Your task to perform on an android device: uninstall "Walmart Shopping & Grocery" Image 0: 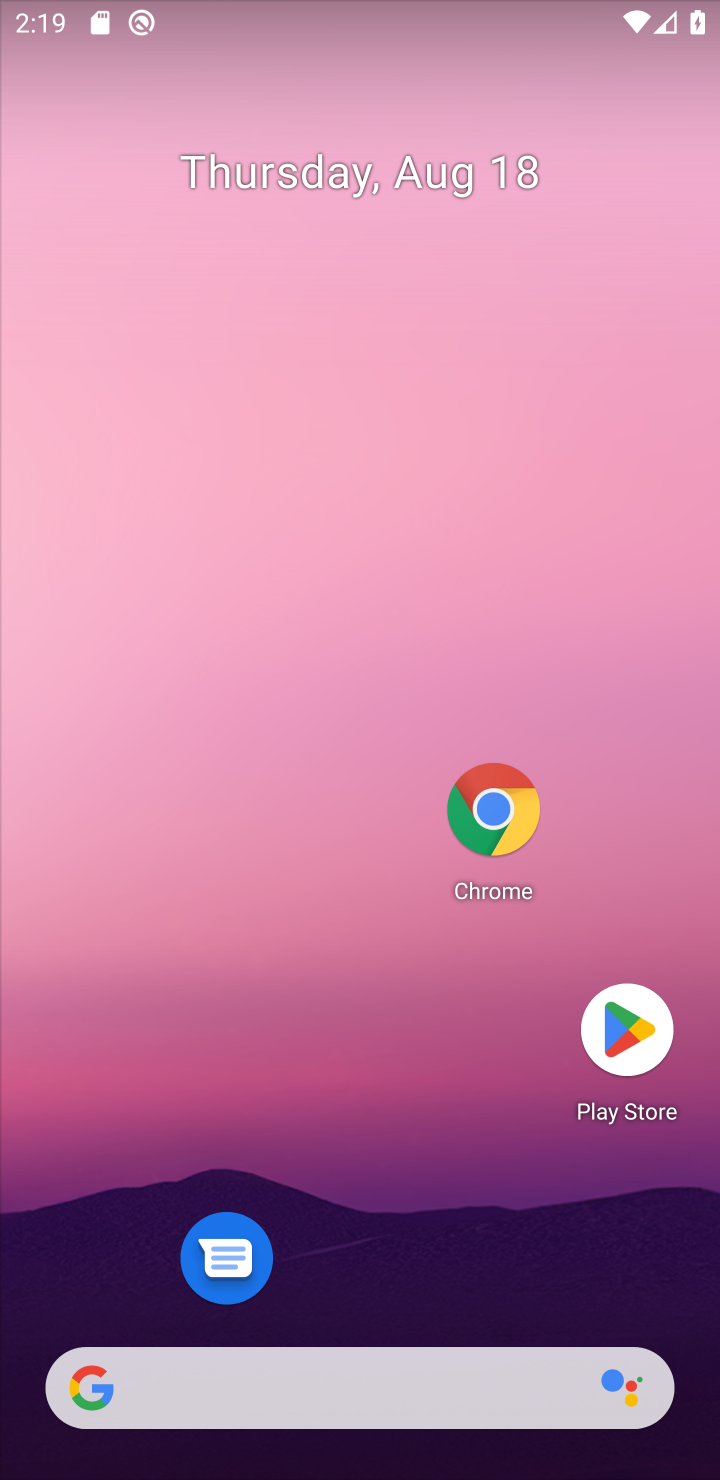
Step 0: drag from (389, 1250) to (403, 292)
Your task to perform on an android device: uninstall "Walmart Shopping & Grocery" Image 1: 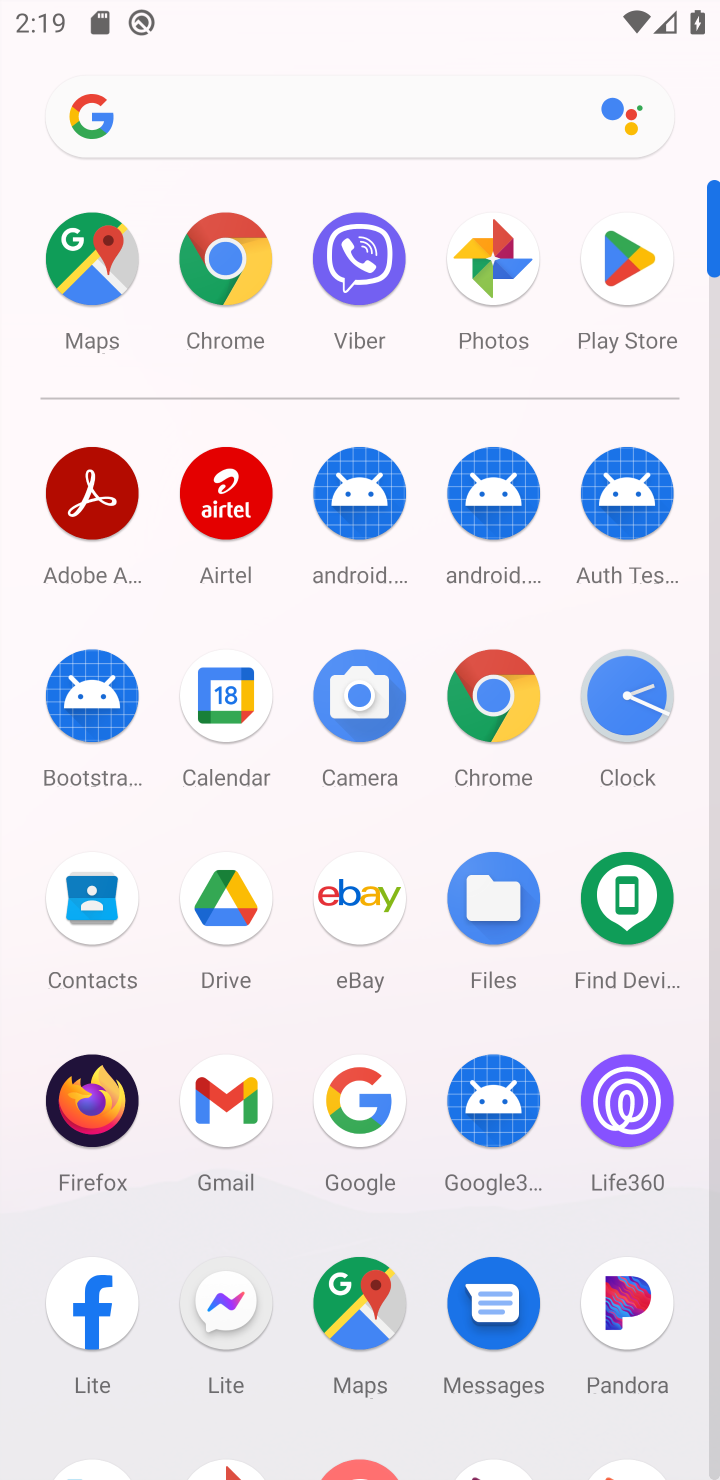
Step 1: click (622, 259)
Your task to perform on an android device: uninstall "Walmart Shopping & Grocery" Image 2: 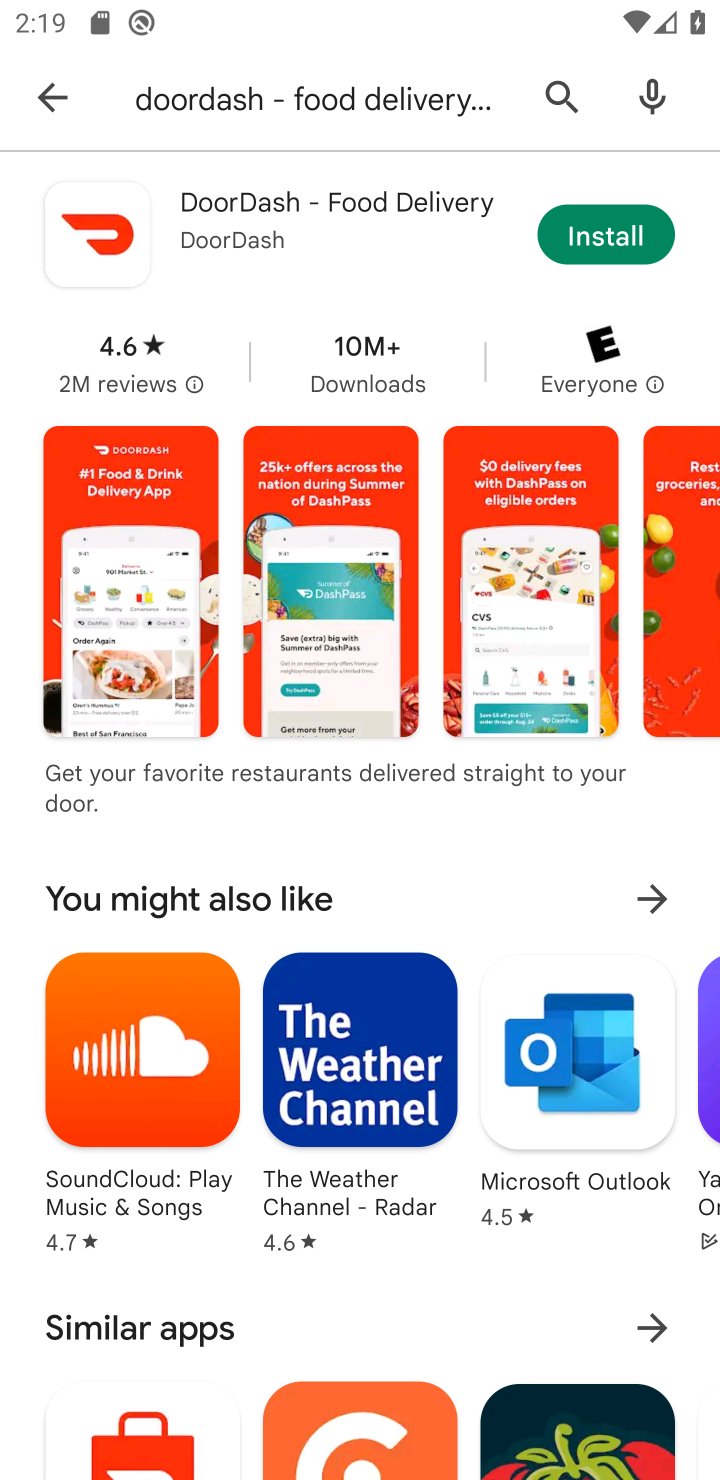
Step 2: click (50, 106)
Your task to perform on an android device: uninstall "Walmart Shopping & Grocery" Image 3: 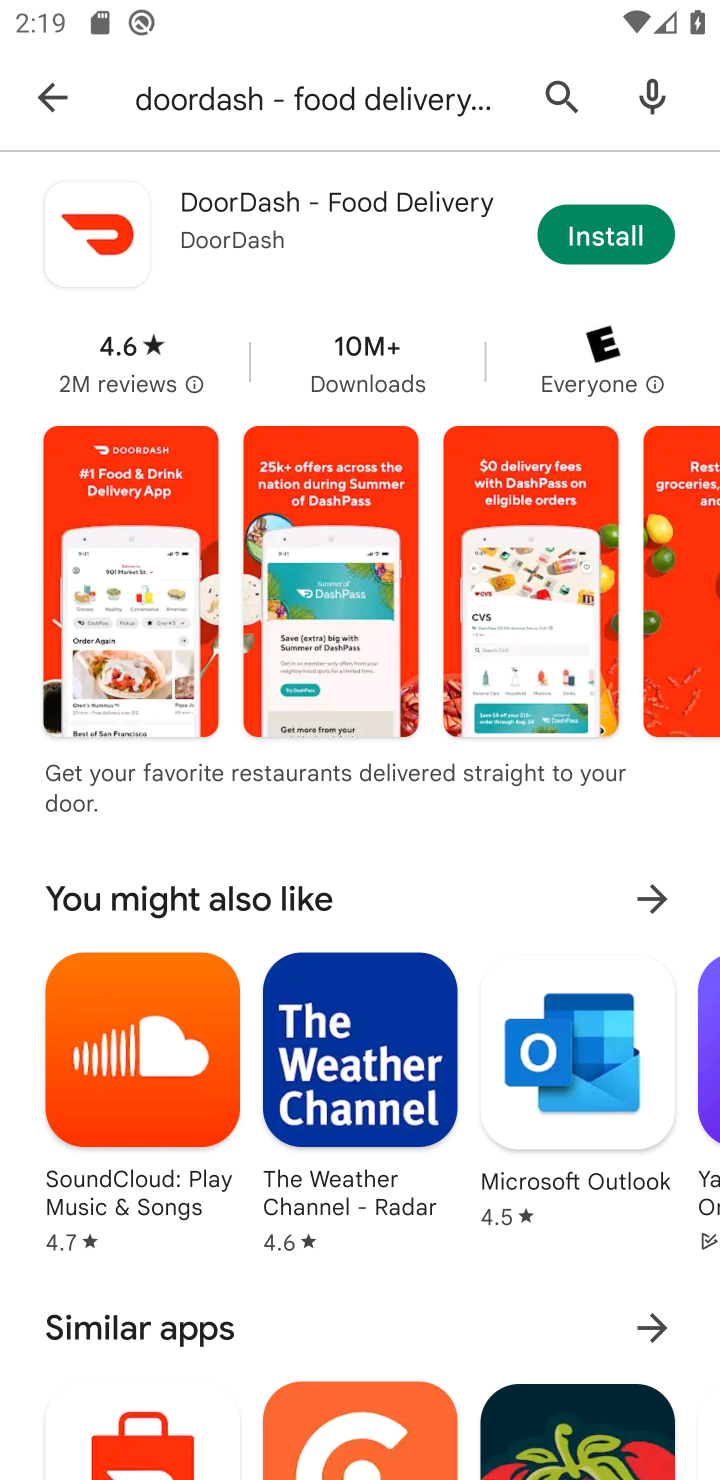
Step 3: click (59, 92)
Your task to perform on an android device: uninstall "Walmart Shopping & Grocery" Image 4: 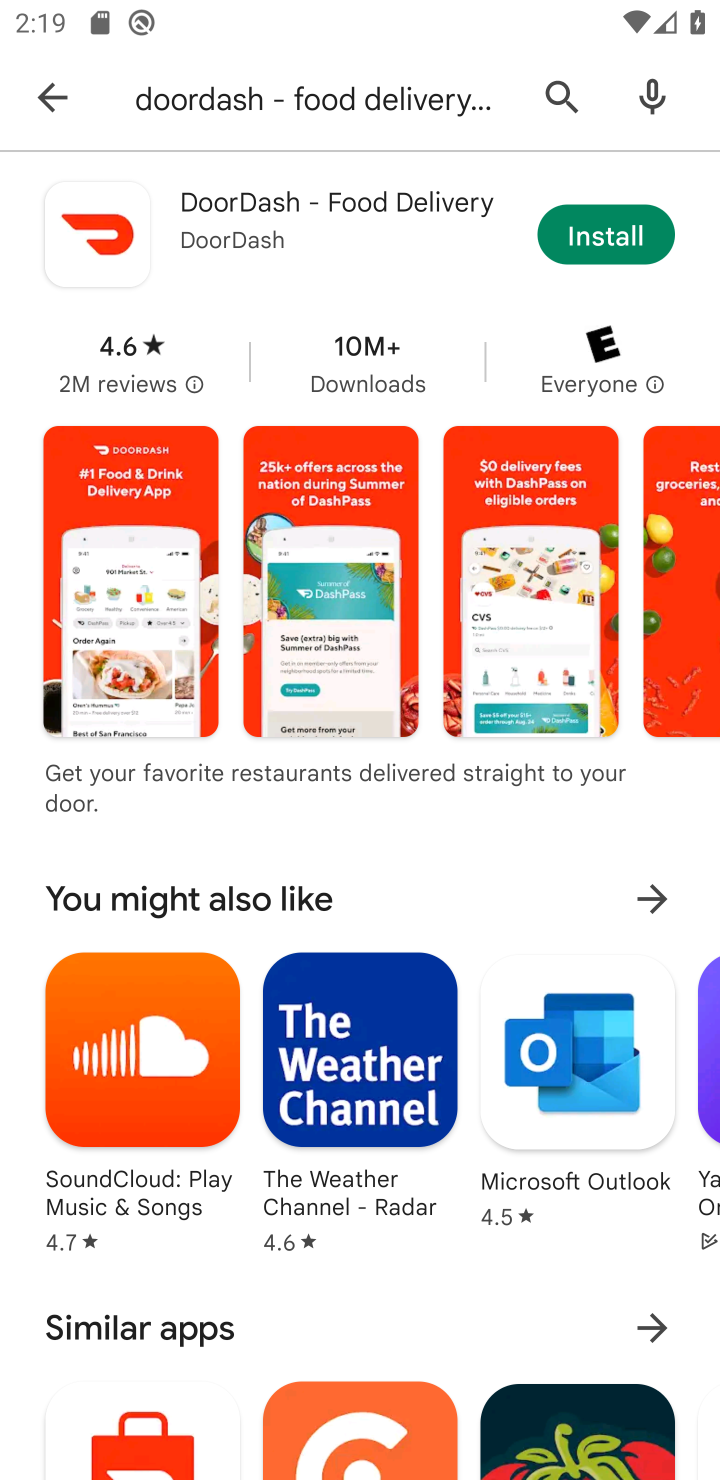
Step 4: click (59, 92)
Your task to perform on an android device: uninstall "Walmart Shopping & Grocery" Image 5: 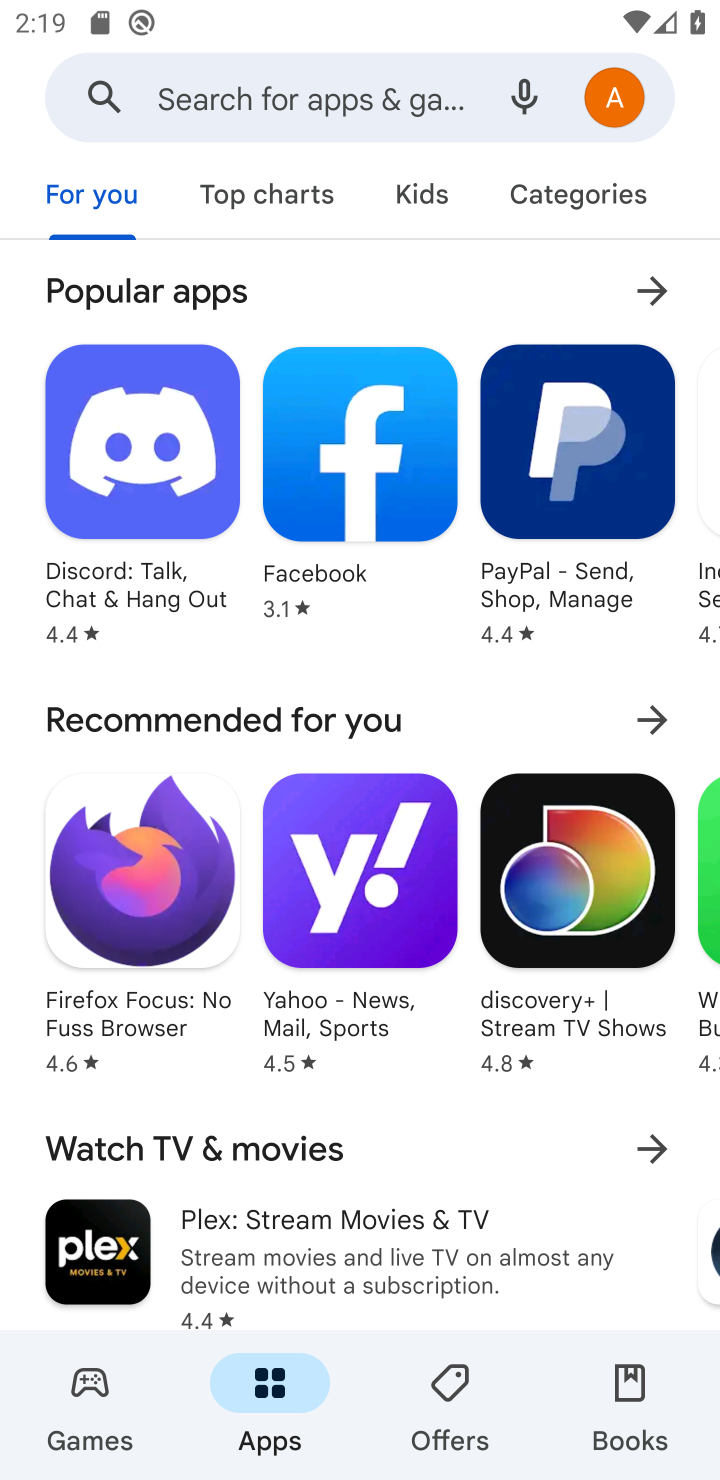
Step 5: click (293, 90)
Your task to perform on an android device: uninstall "Walmart Shopping & Grocery" Image 6: 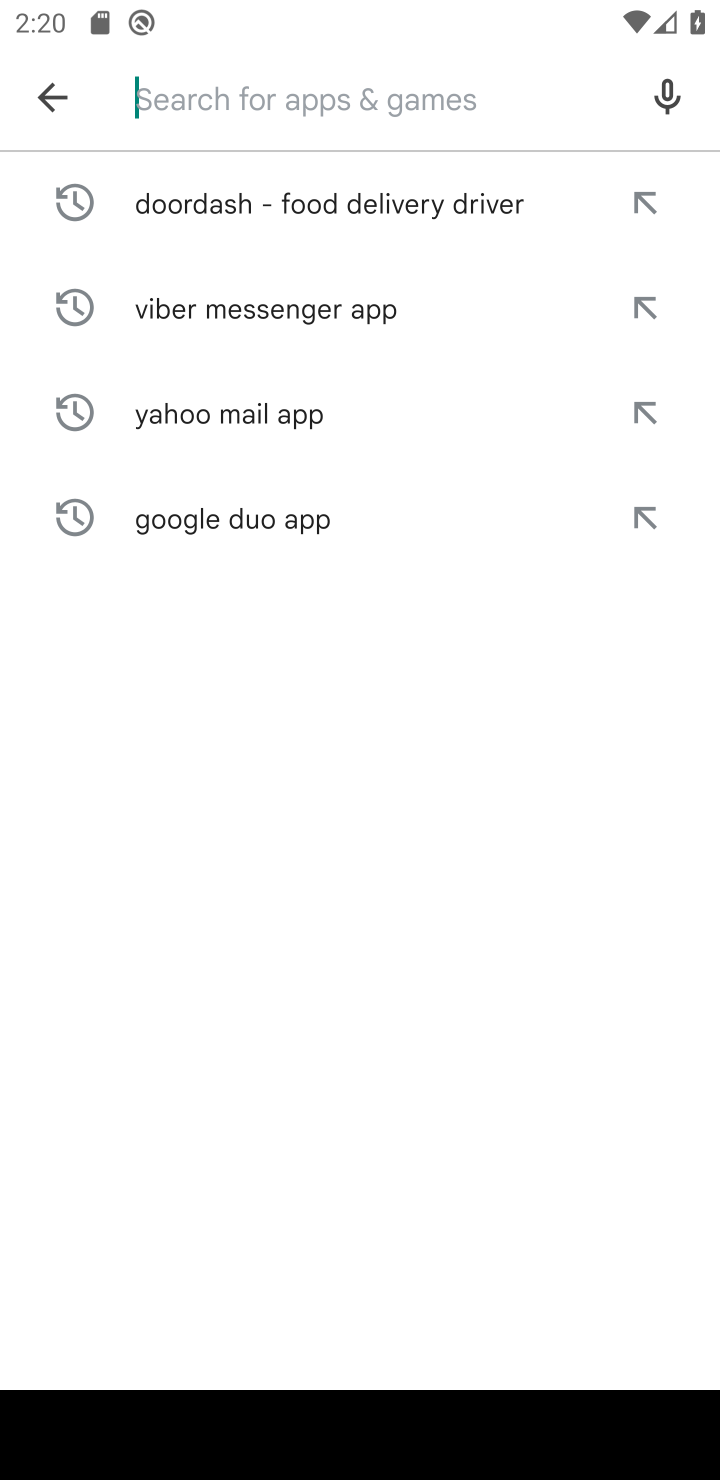
Step 6: click (325, 88)
Your task to perform on an android device: uninstall "Walmart Shopping & Grocery" Image 7: 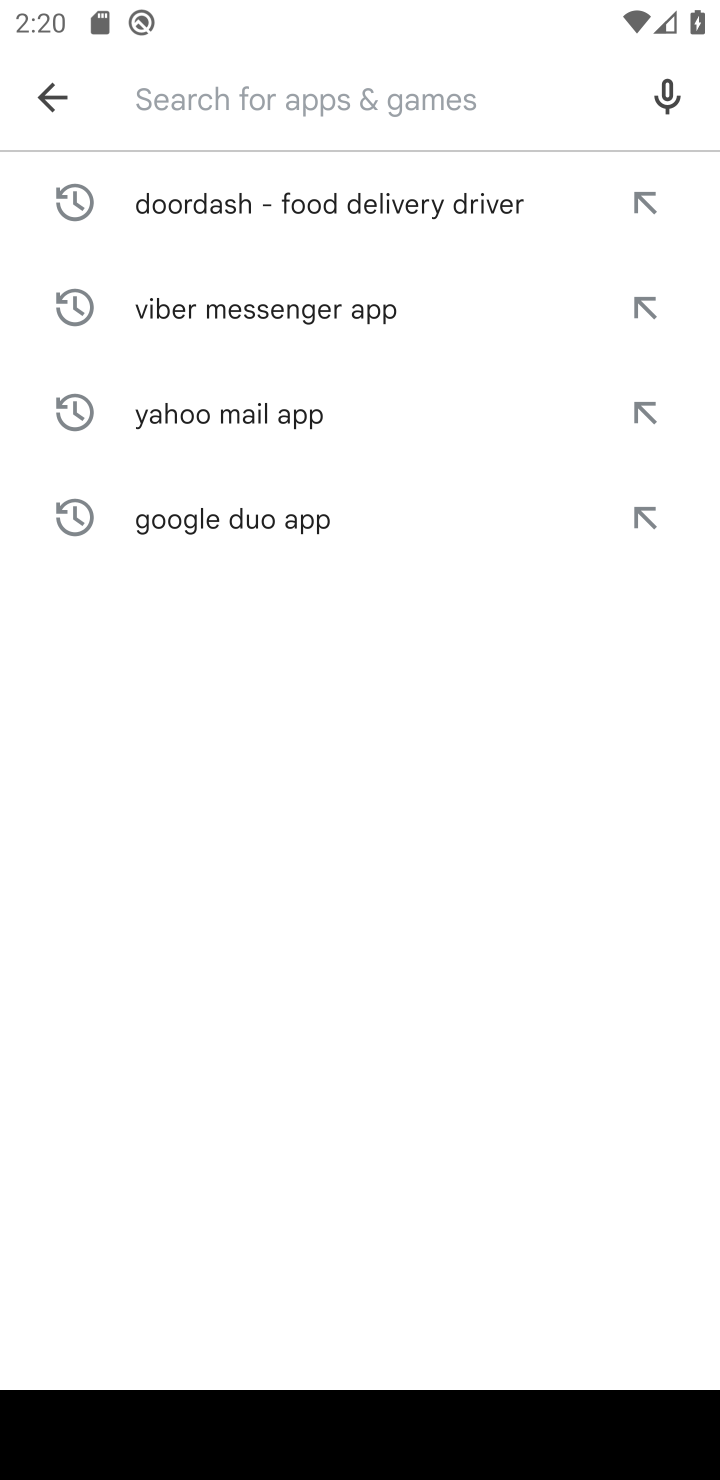
Step 7: type "Walmart Shopping & Grocery "
Your task to perform on an android device: uninstall "Walmart Shopping & Grocery" Image 8: 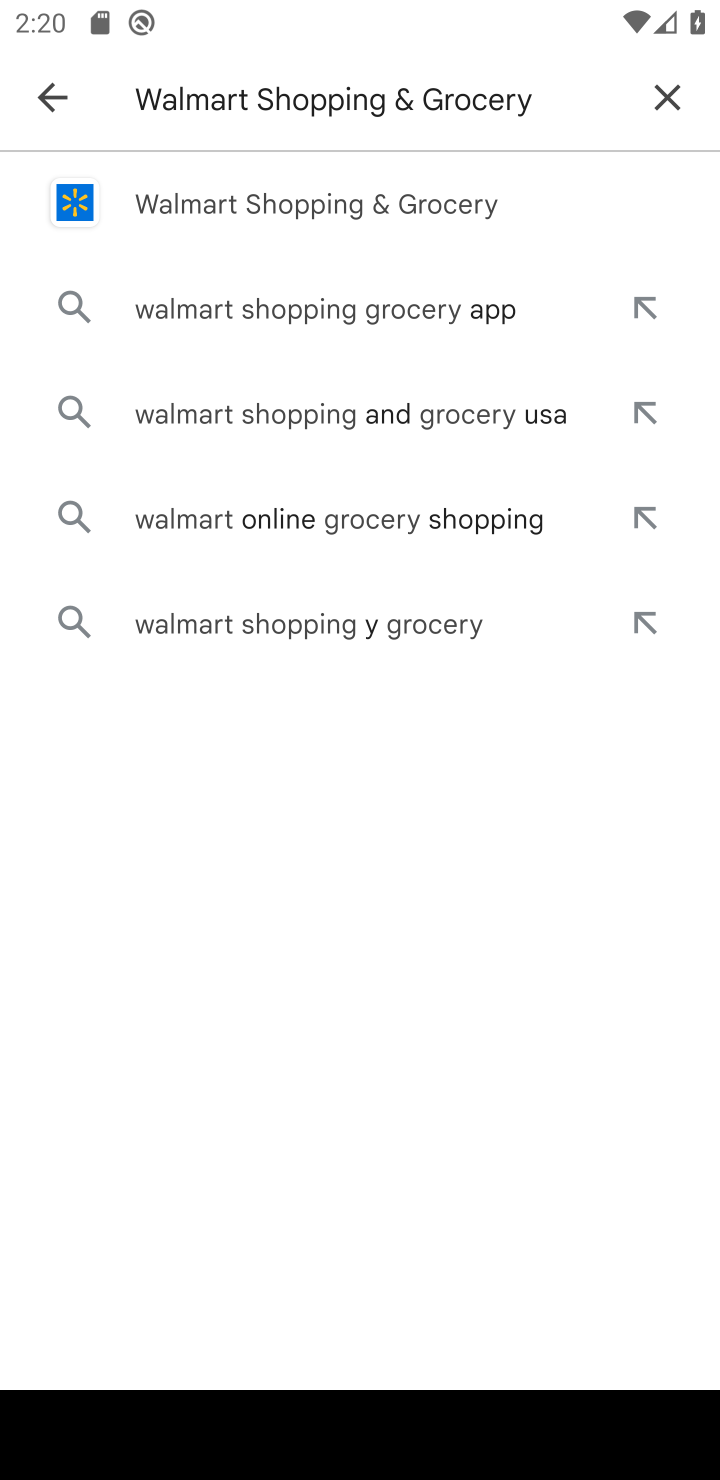
Step 8: click (247, 204)
Your task to perform on an android device: uninstall "Walmart Shopping & Grocery" Image 9: 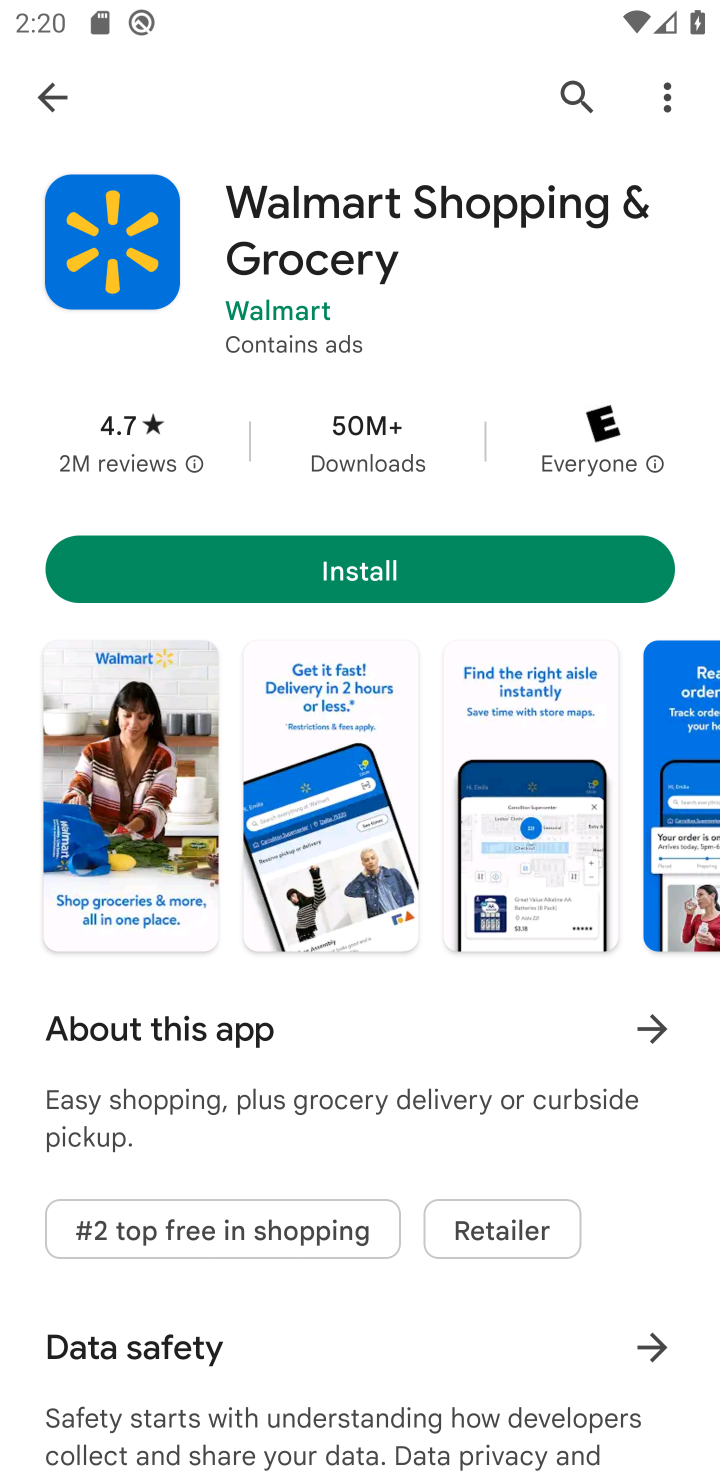
Step 9: task complete